Your task to perform on an android device: change the clock display to analog Image 0: 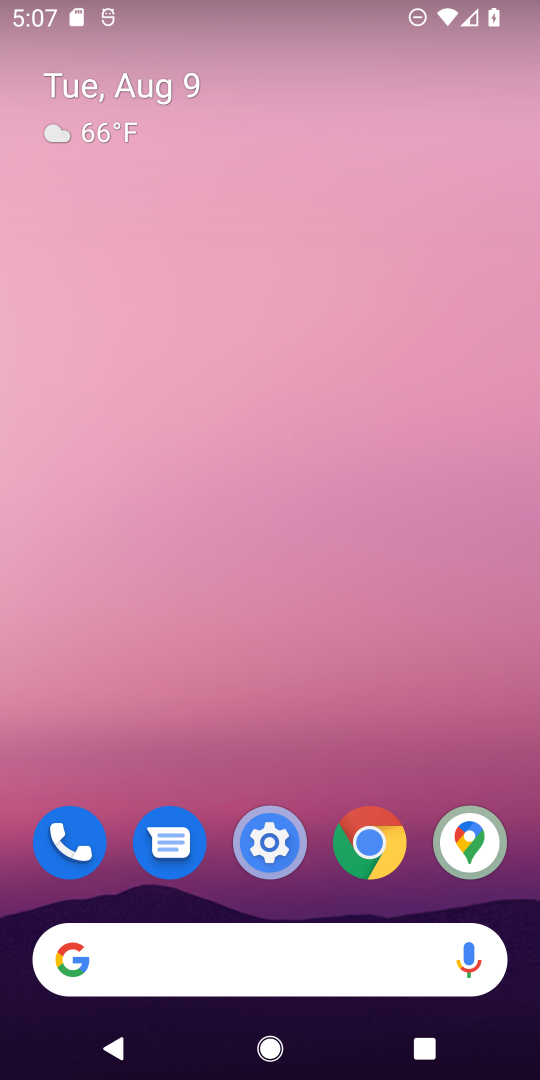
Step 0: drag from (389, 952) to (401, 169)
Your task to perform on an android device: change the clock display to analog Image 1: 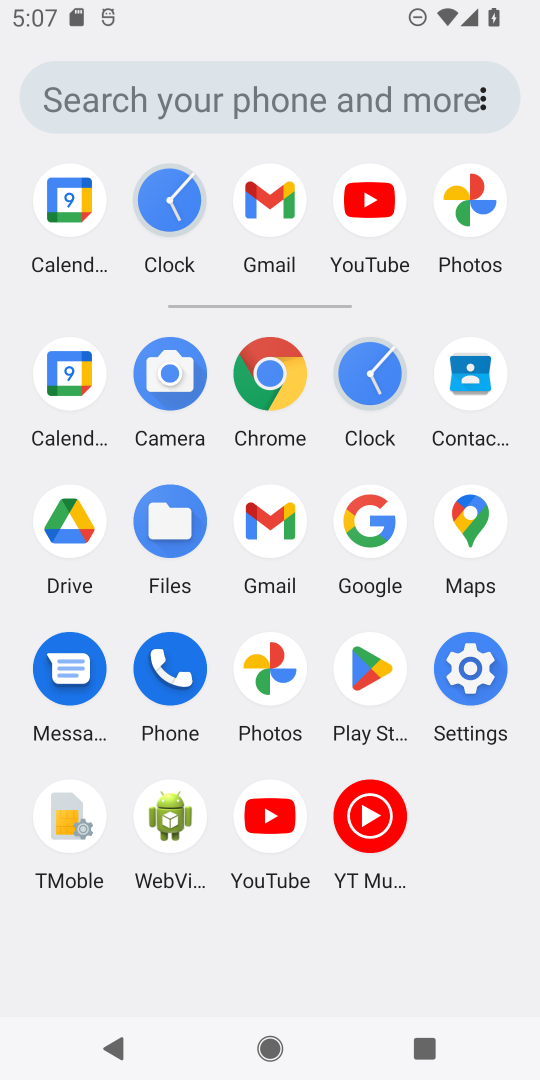
Step 1: click (384, 375)
Your task to perform on an android device: change the clock display to analog Image 2: 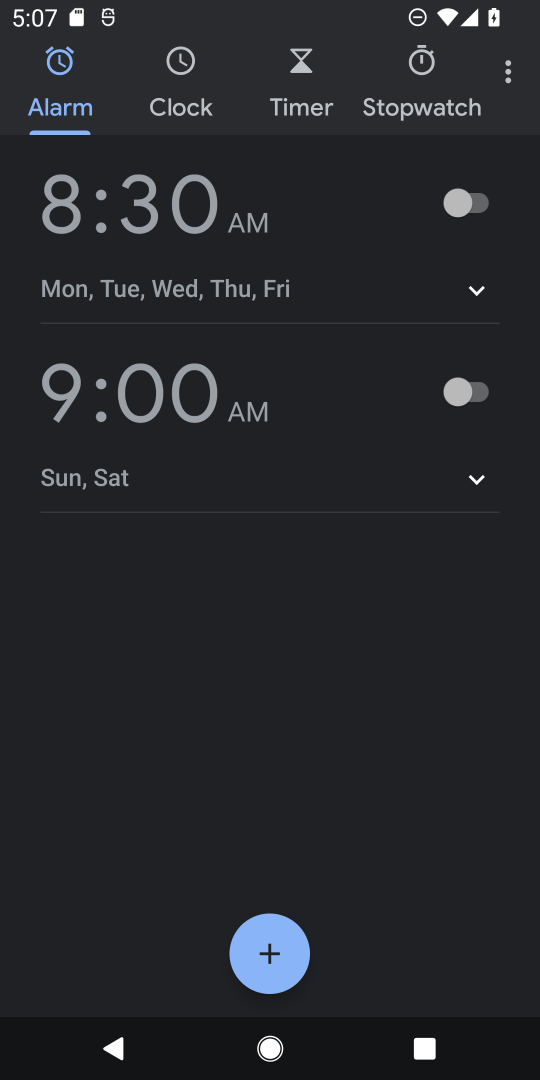
Step 2: click (496, 87)
Your task to perform on an android device: change the clock display to analog Image 3: 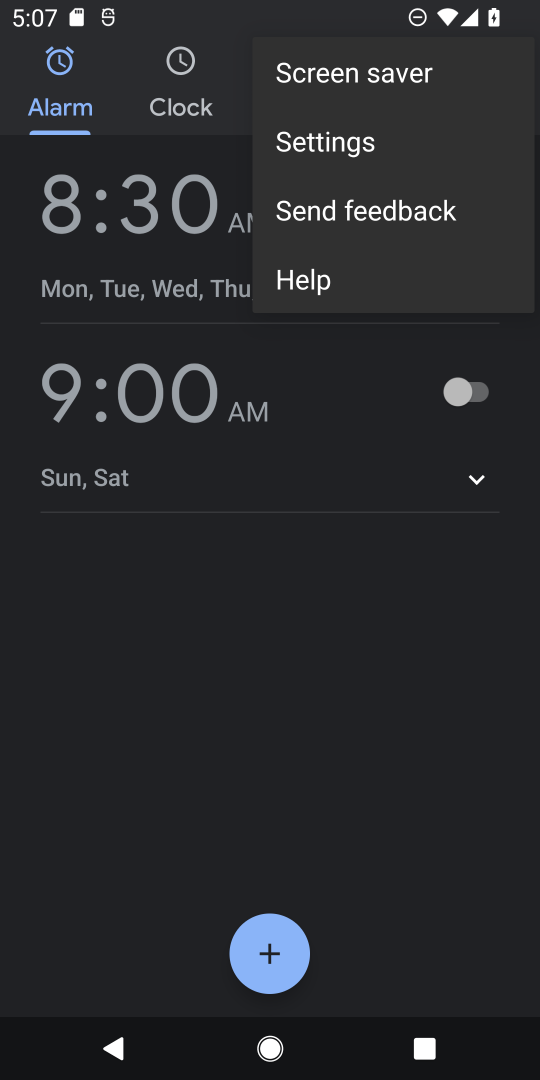
Step 3: click (394, 164)
Your task to perform on an android device: change the clock display to analog Image 4: 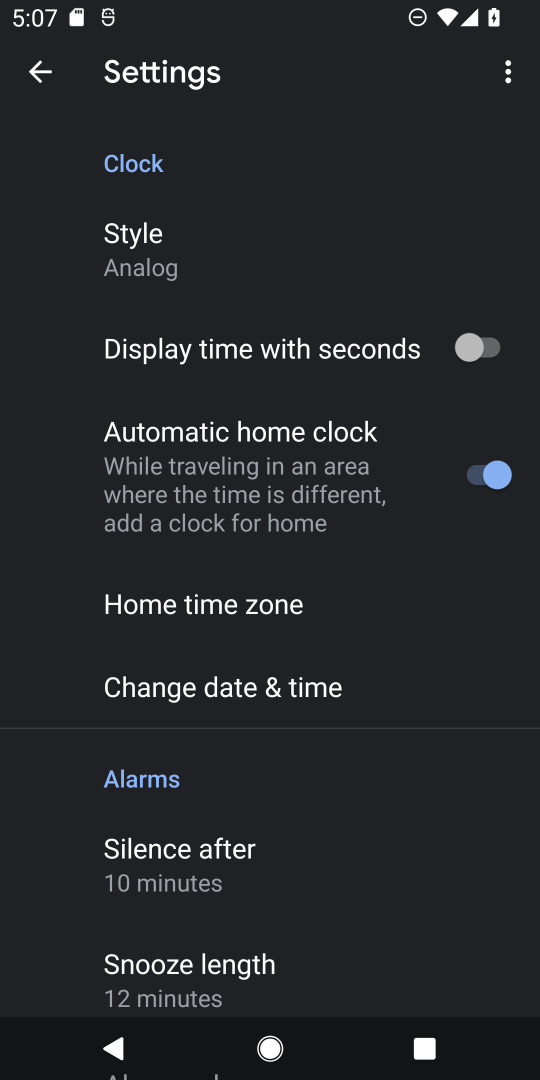
Step 4: task complete